Your task to perform on an android device: snooze an email in the gmail app Image 0: 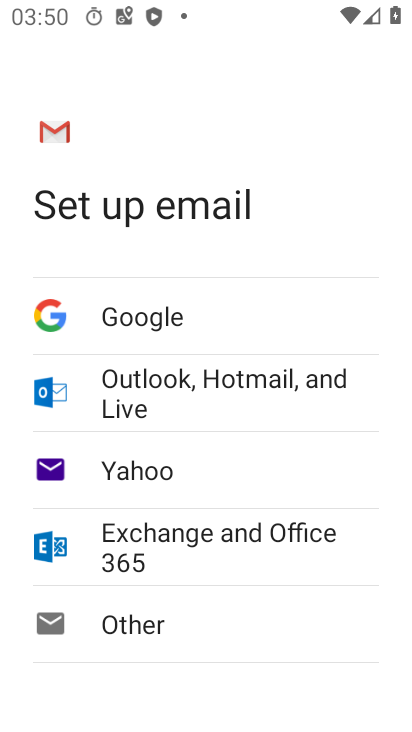
Step 0: press home button
Your task to perform on an android device: snooze an email in the gmail app Image 1: 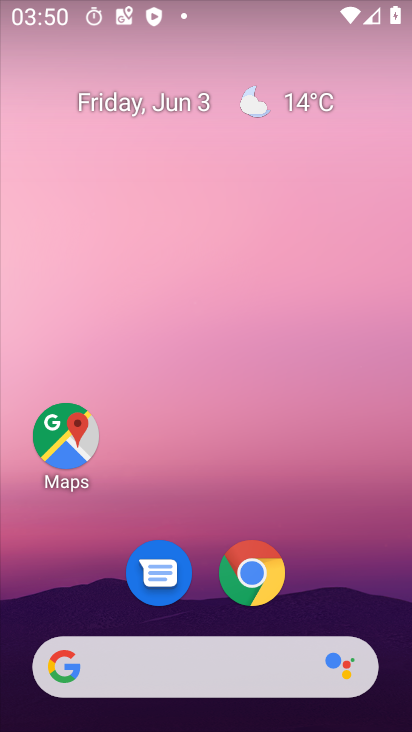
Step 1: drag from (296, 655) to (357, 0)
Your task to perform on an android device: snooze an email in the gmail app Image 2: 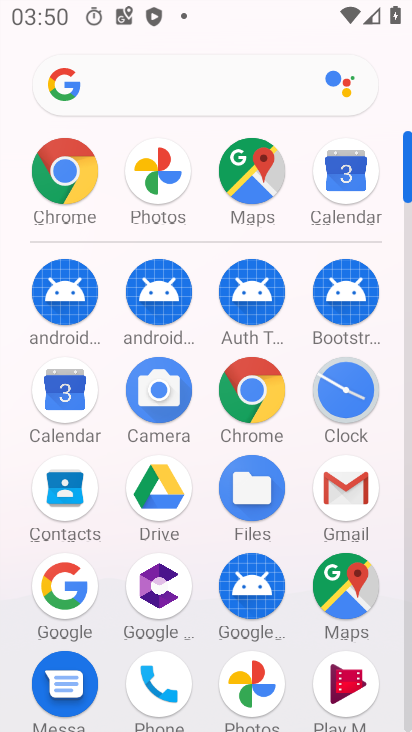
Step 2: click (360, 484)
Your task to perform on an android device: snooze an email in the gmail app Image 3: 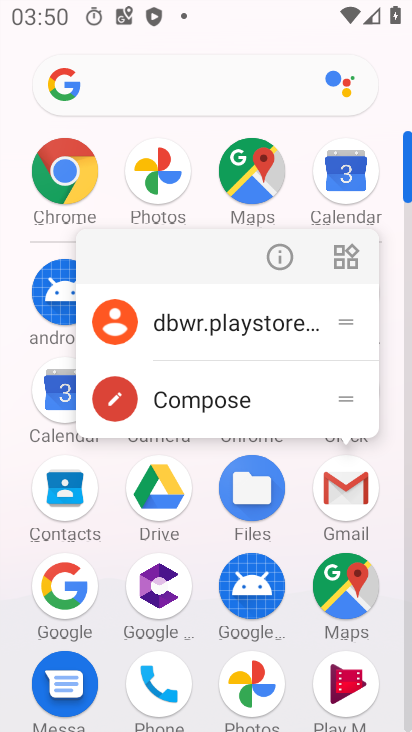
Step 3: click (323, 507)
Your task to perform on an android device: snooze an email in the gmail app Image 4: 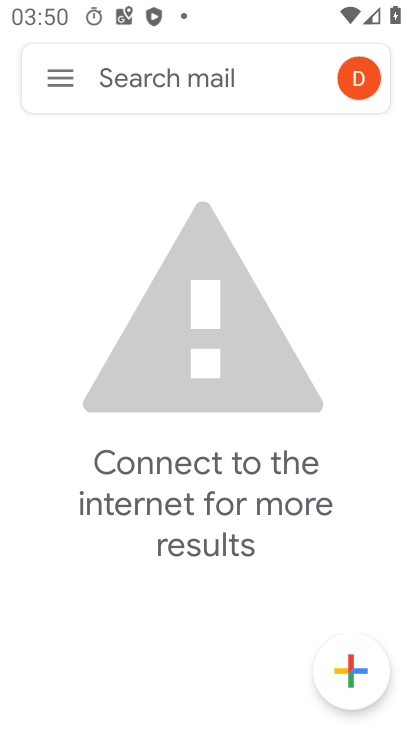
Step 4: click (62, 67)
Your task to perform on an android device: snooze an email in the gmail app Image 5: 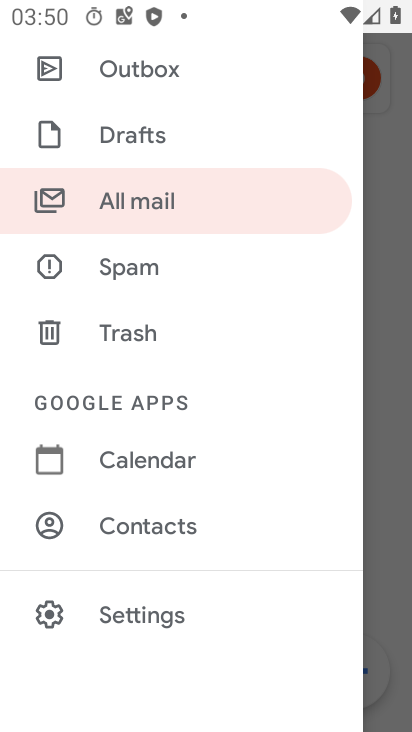
Step 5: drag from (175, 82) to (158, 450)
Your task to perform on an android device: snooze an email in the gmail app Image 6: 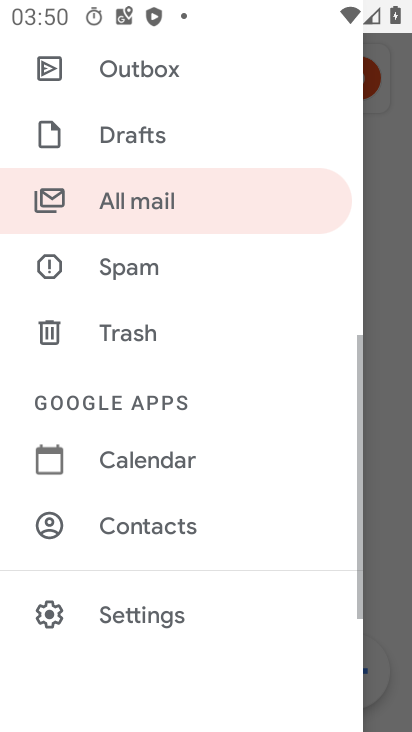
Step 6: drag from (166, 296) to (191, 731)
Your task to perform on an android device: snooze an email in the gmail app Image 7: 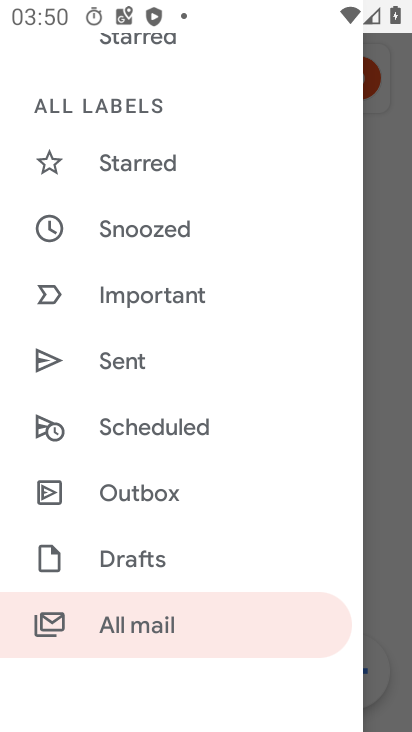
Step 7: drag from (183, 605) to (237, 303)
Your task to perform on an android device: snooze an email in the gmail app Image 8: 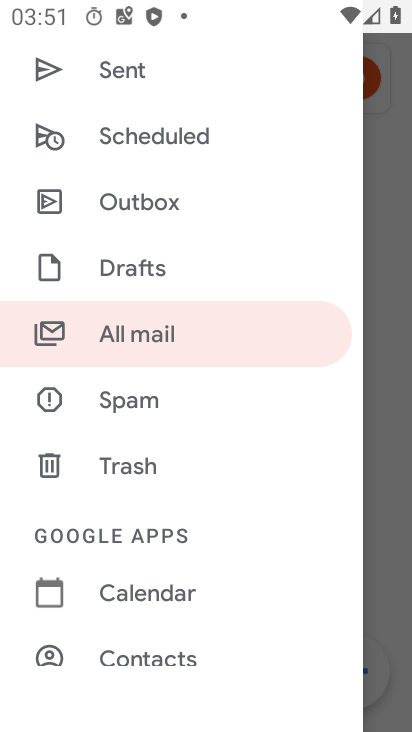
Step 8: drag from (218, 138) to (207, 446)
Your task to perform on an android device: snooze an email in the gmail app Image 9: 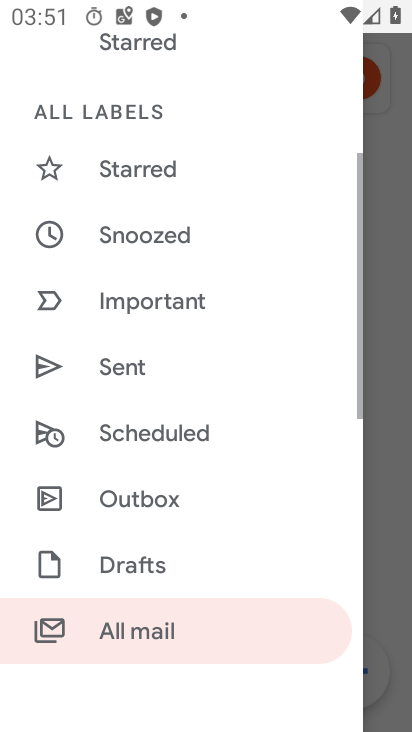
Step 9: drag from (210, 199) to (181, 389)
Your task to perform on an android device: snooze an email in the gmail app Image 10: 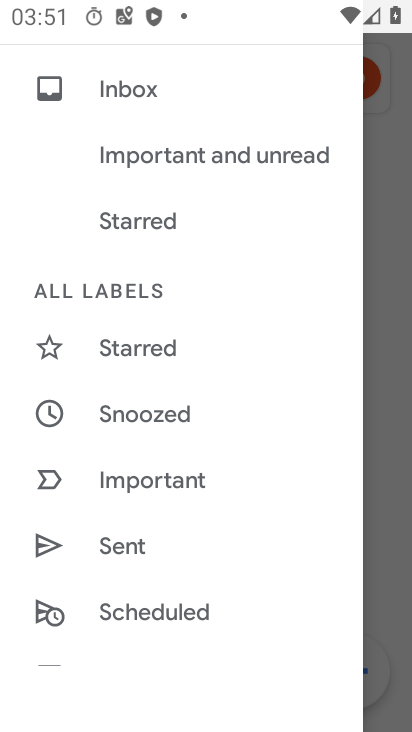
Step 10: click (158, 418)
Your task to perform on an android device: snooze an email in the gmail app Image 11: 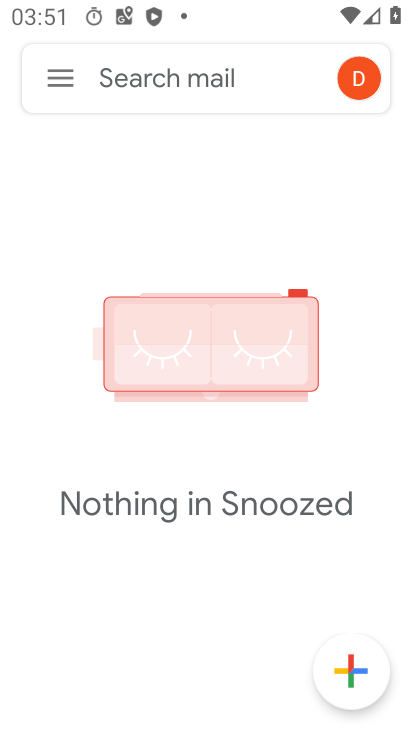
Step 11: task complete